Your task to perform on an android device: turn off javascript in the chrome app Image 0: 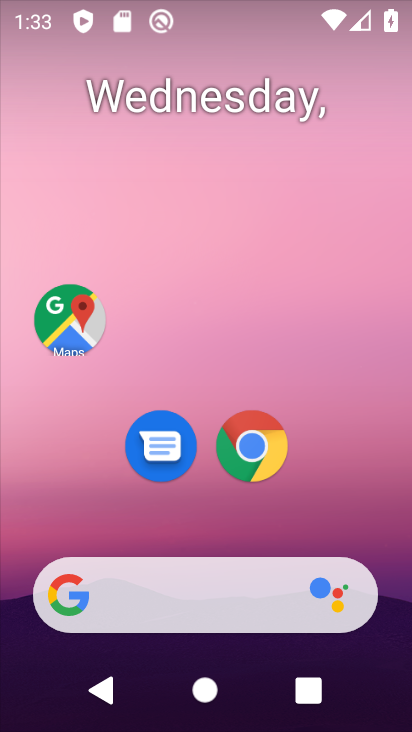
Step 0: click (278, 460)
Your task to perform on an android device: turn off javascript in the chrome app Image 1: 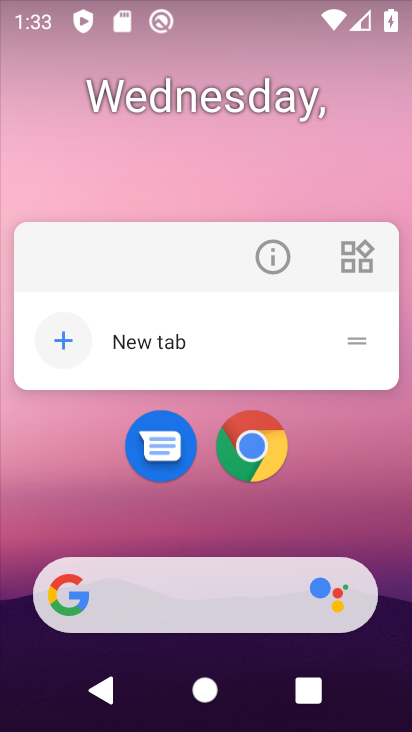
Step 1: click (278, 460)
Your task to perform on an android device: turn off javascript in the chrome app Image 2: 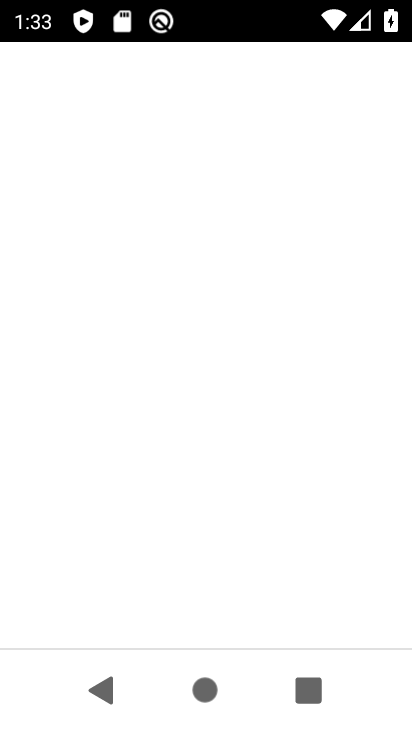
Step 2: click (278, 460)
Your task to perform on an android device: turn off javascript in the chrome app Image 3: 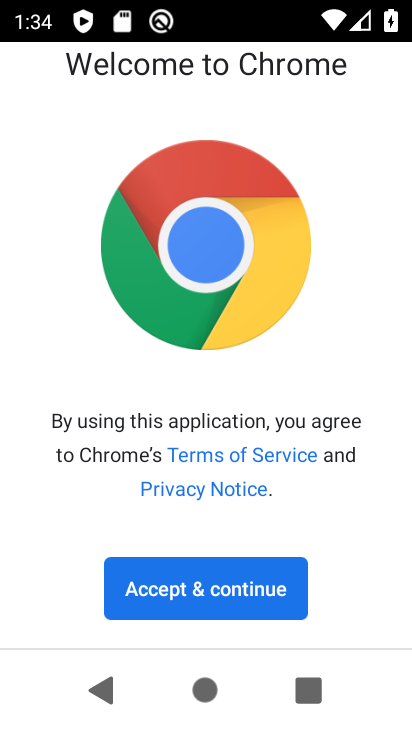
Step 3: click (228, 607)
Your task to perform on an android device: turn off javascript in the chrome app Image 4: 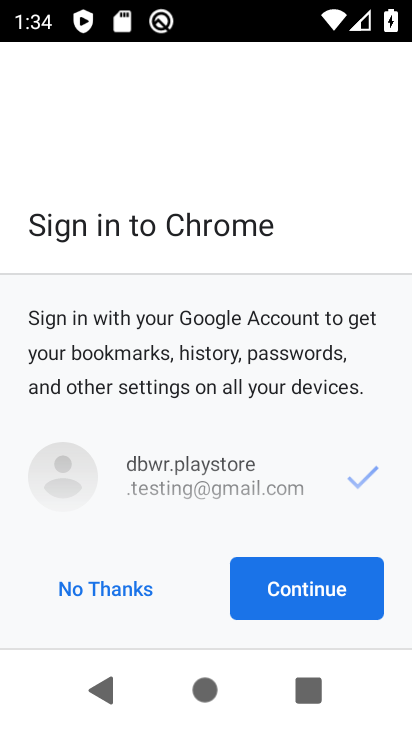
Step 4: click (228, 607)
Your task to perform on an android device: turn off javascript in the chrome app Image 5: 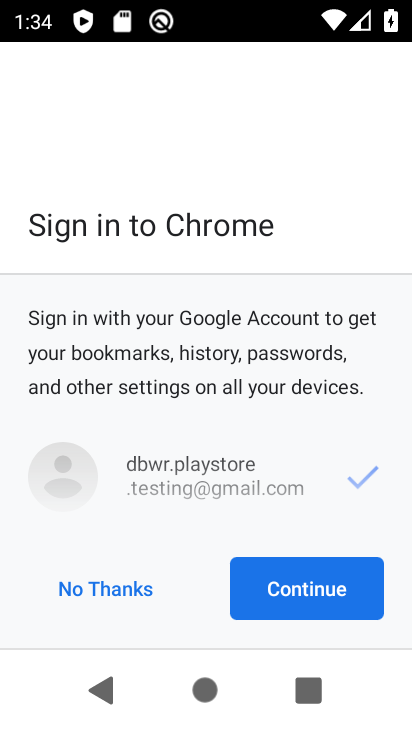
Step 5: click (254, 609)
Your task to perform on an android device: turn off javascript in the chrome app Image 6: 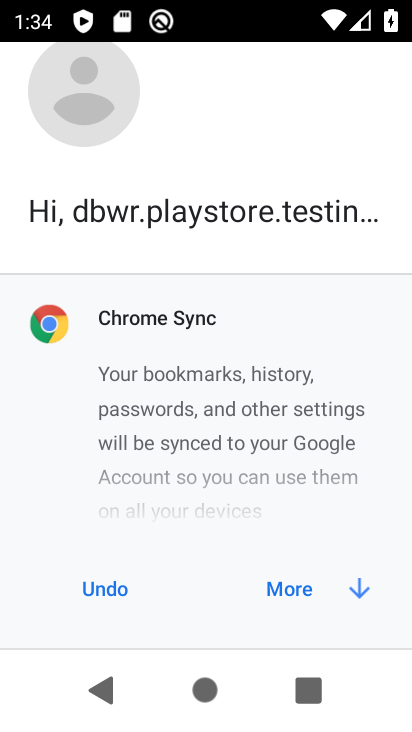
Step 6: click (294, 604)
Your task to perform on an android device: turn off javascript in the chrome app Image 7: 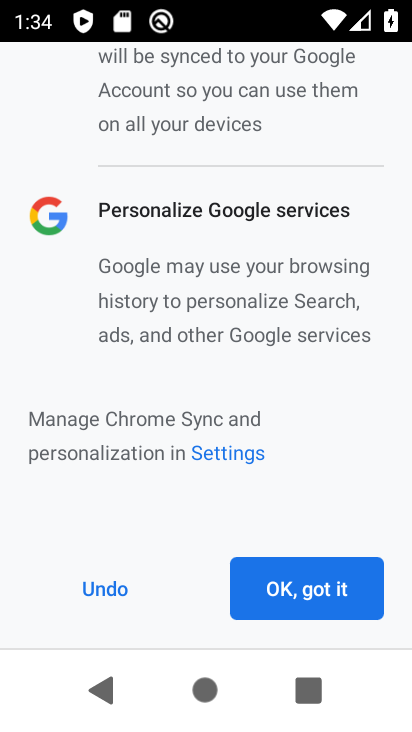
Step 7: click (317, 602)
Your task to perform on an android device: turn off javascript in the chrome app Image 8: 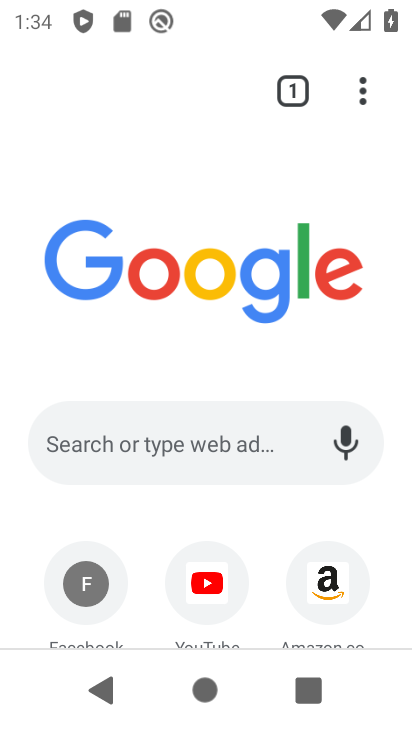
Step 8: click (355, 111)
Your task to perform on an android device: turn off javascript in the chrome app Image 9: 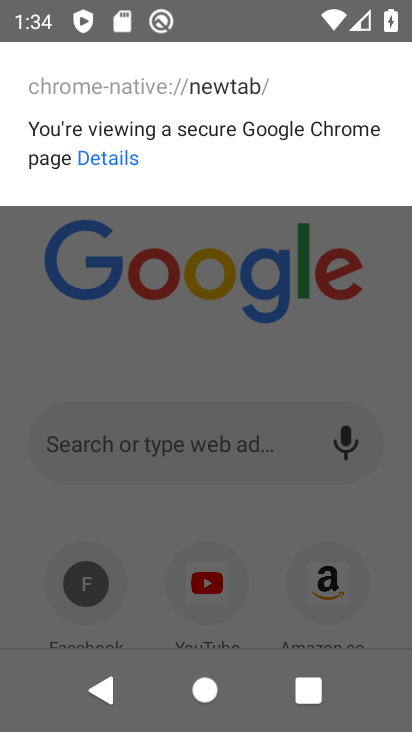
Step 9: click (285, 266)
Your task to perform on an android device: turn off javascript in the chrome app Image 10: 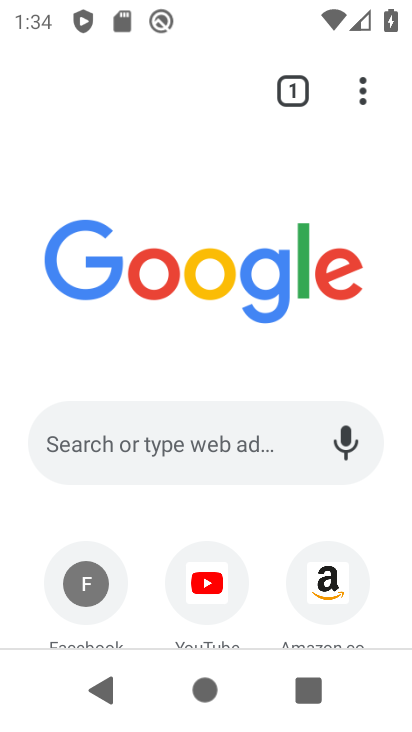
Step 10: click (366, 116)
Your task to perform on an android device: turn off javascript in the chrome app Image 11: 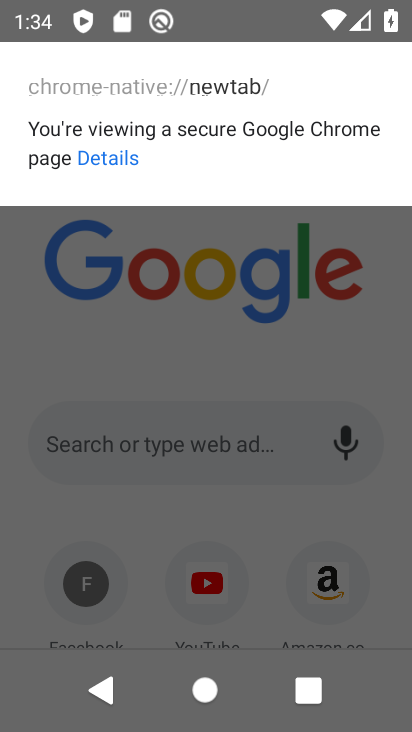
Step 11: click (151, 210)
Your task to perform on an android device: turn off javascript in the chrome app Image 12: 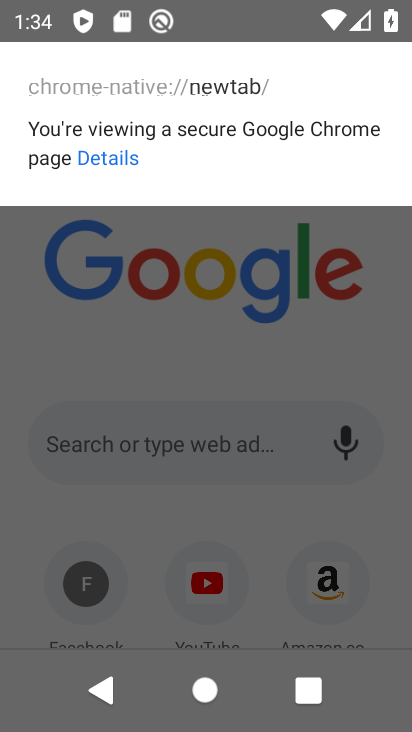
Step 12: click (151, 210)
Your task to perform on an android device: turn off javascript in the chrome app Image 13: 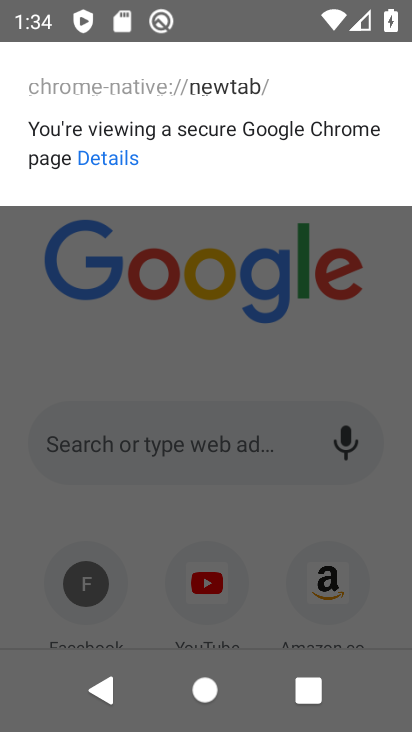
Step 13: click (116, 302)
Your task to perform on an android device: turn off javascript in the chrome app Image 14: 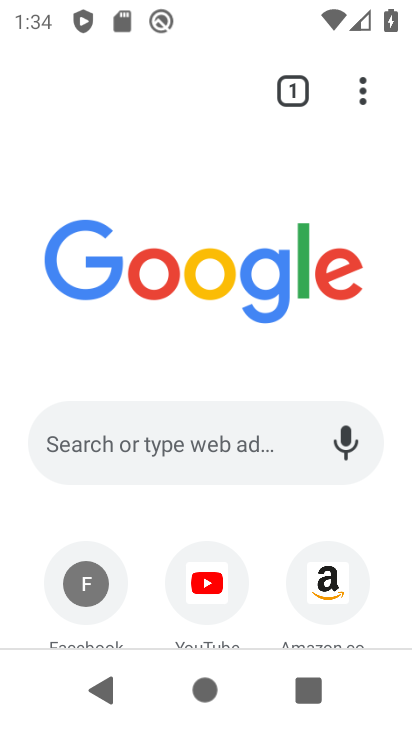
Step 14: click (363, 83)
Your task to perform on an android device: turn off javascript in the chrome app Image 15: 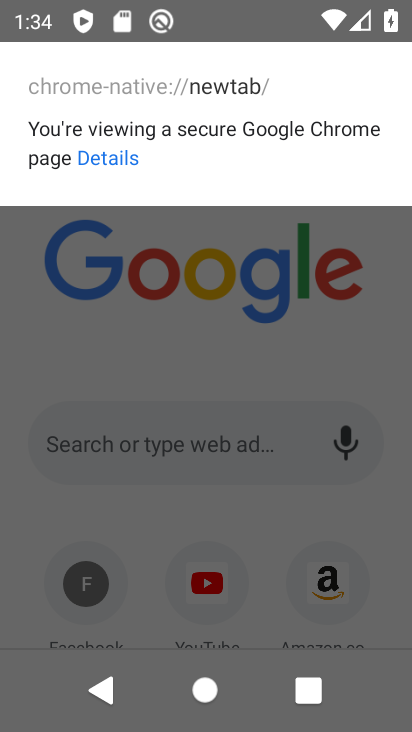
Step 15: click (290, 295)
Your task to perform on an android device: turn off javascript in the chrome app Image 16: 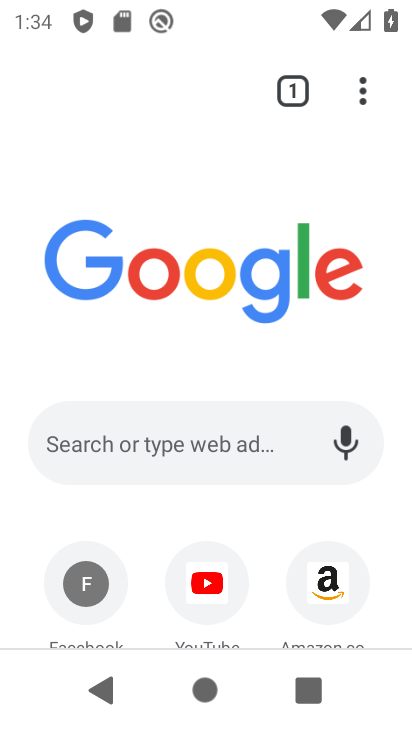
Step 16: click (361, 102)
Your task to perform on an android device: turn off javascript in the chrome app Image 17: 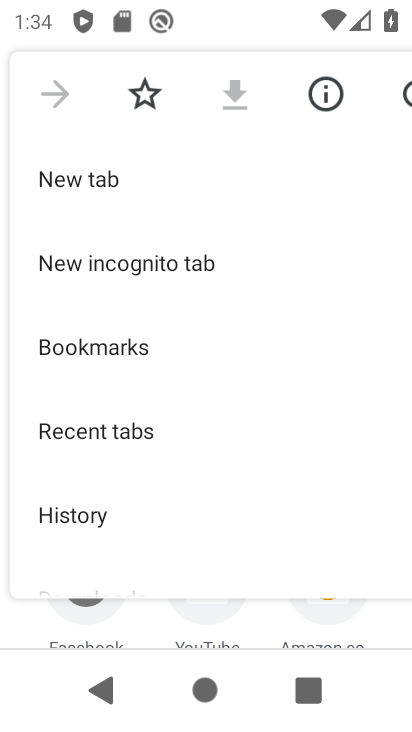
Step 17: drag from (273, 470) to (186, 146)
Your task to perform on an android device: turn off javascript in the chrome app Image 18: 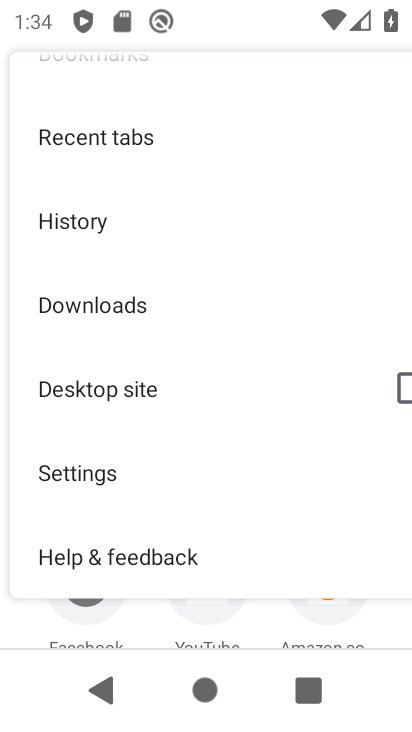
Step 18: click (60, 458)
Your task to perform on an android device: turn off javascript in the chrome app Image 19: 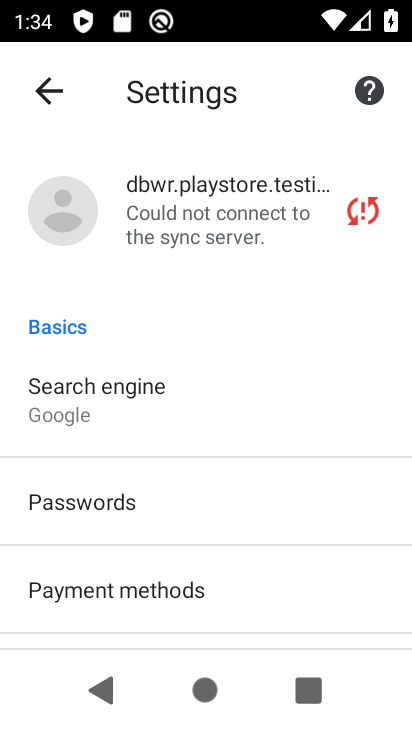
Step 19: drag from (106, 554) to (90, 257)
Your task to perform on an android device: turn off javascript in the chrome app Image 20: 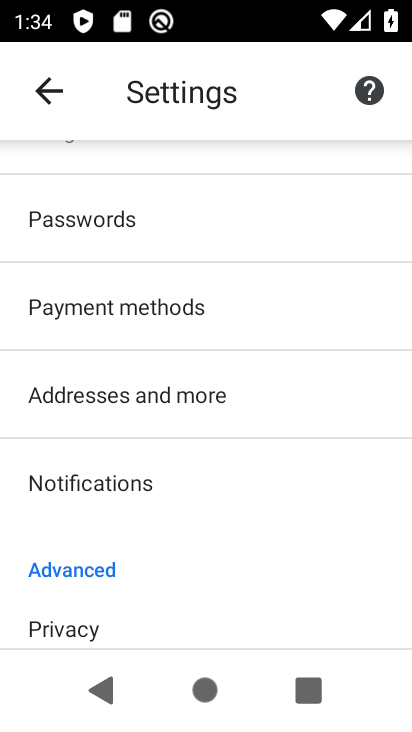
Step 20: drag from (166, 481) to (155, 255)
Your task to perform on an android device: turn off javascript in the chrome app Image 21: 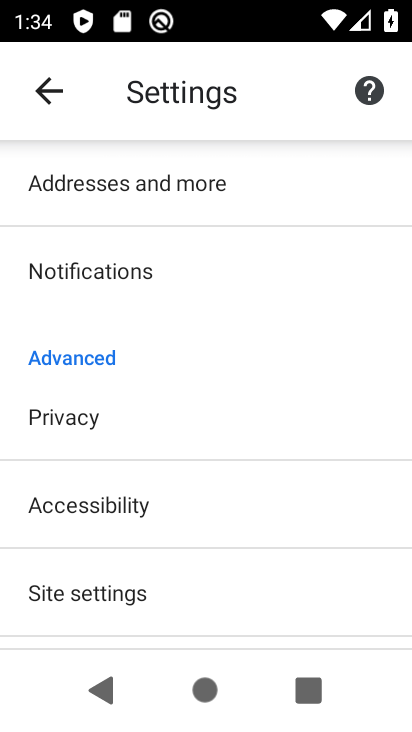
Step 21: click (151, 576)
Your task to perform on an android device: turn off javascript in the chrome app Image 22: 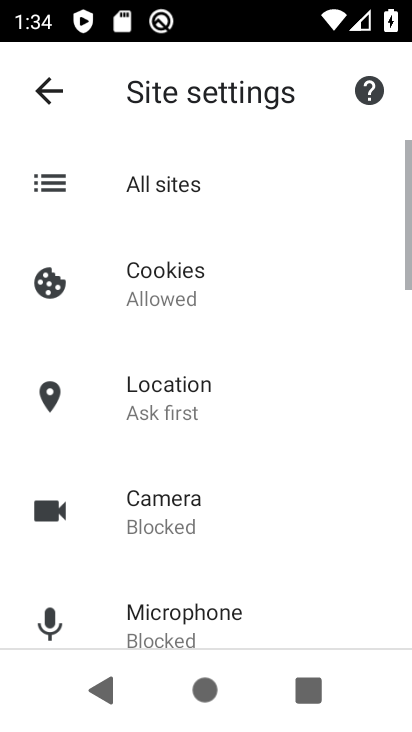
Step 22: drag from (151, 576) to (126, 313)
Your task to perform on an android device: turn off javascript in the chrome app Image 23: 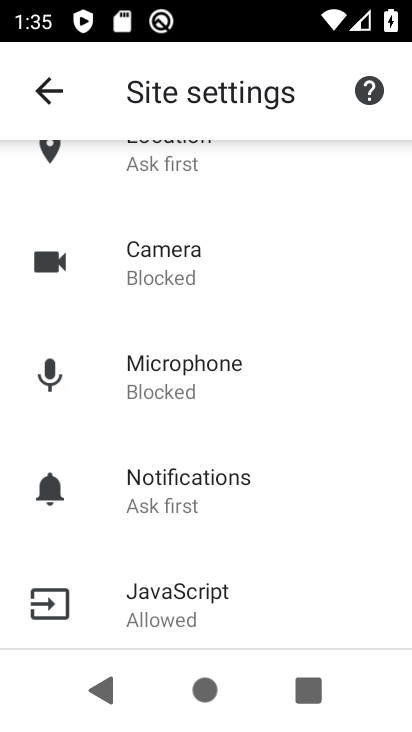
Step 23: click (170, 574)
Your task to perform on an android device: turn off javascript in the chrome app Image 24: 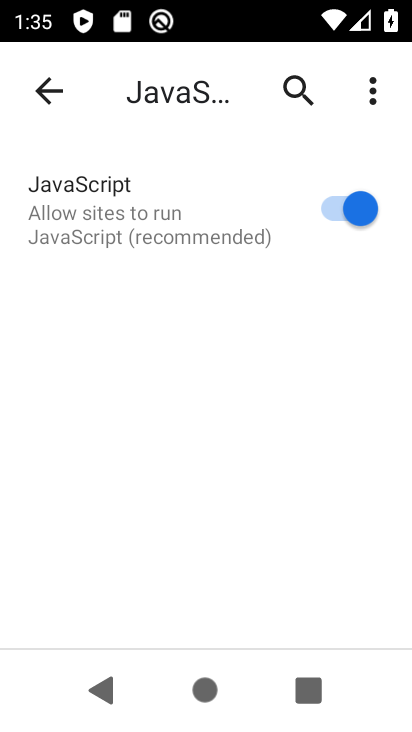
Step 24: click (294, 210)
Your task to perform on an android device: turn off javascript in the chrome app Image 25: 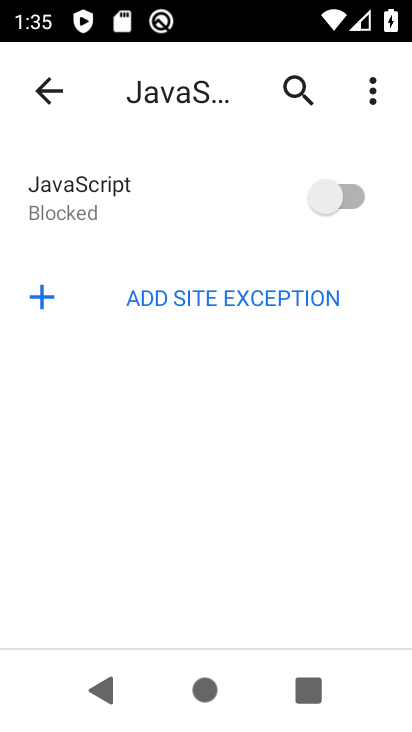
Step 25: task complete